Your task to perform on an android device: turn on translation in the chrome app Image 0: 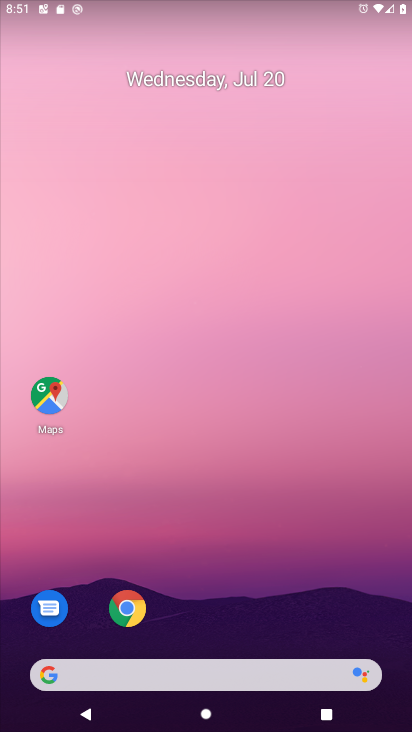
Step 0: drag from (234, 594) to (226, 148)
Your task to perform on an android device: turn on translation in the chrome app Image 1: 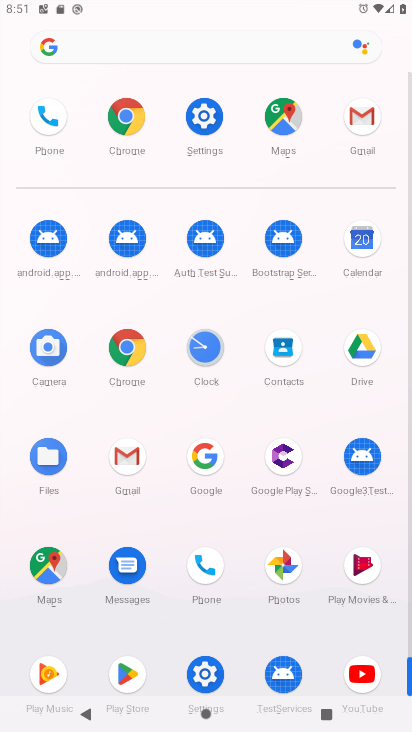
Step 1: click (117, 113)
Your task to perform on an android device: turn on translation in the chrome app Image 2: 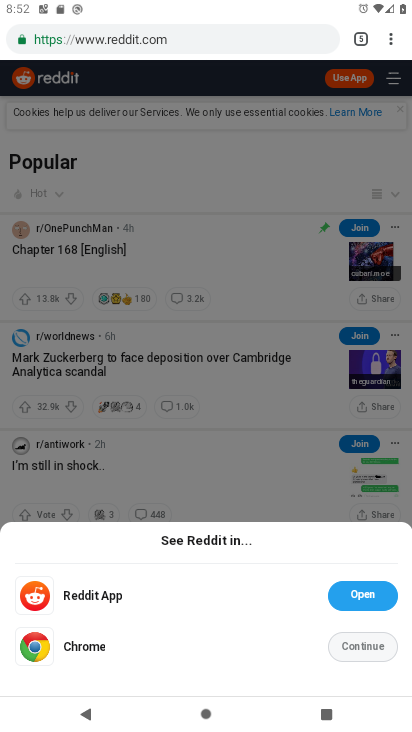
Step 2: click (396, 34)
Your task to perform on an android device: turn on translation in the chrome app Image 3: 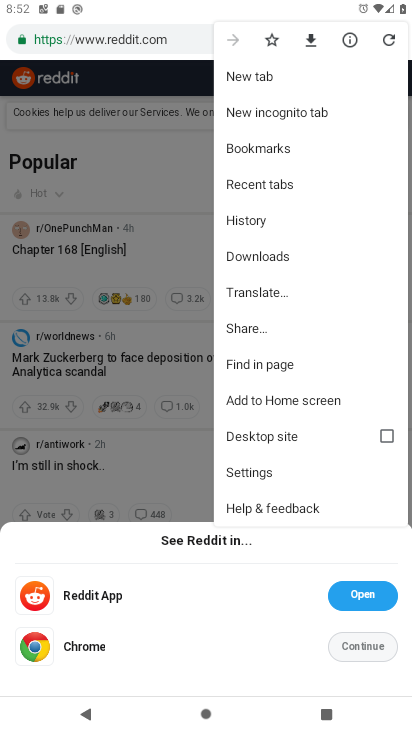
Step 3: click (282, 475)
Your task to perform on an android device: turn on translation in the chrome app Image 4: 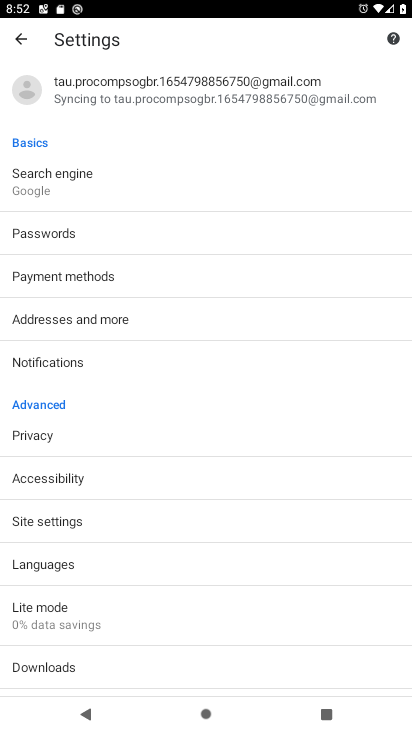
Step 4: click (100, 572)
Your task to perform on an android device: turn on translation in the chrome app Image 5: 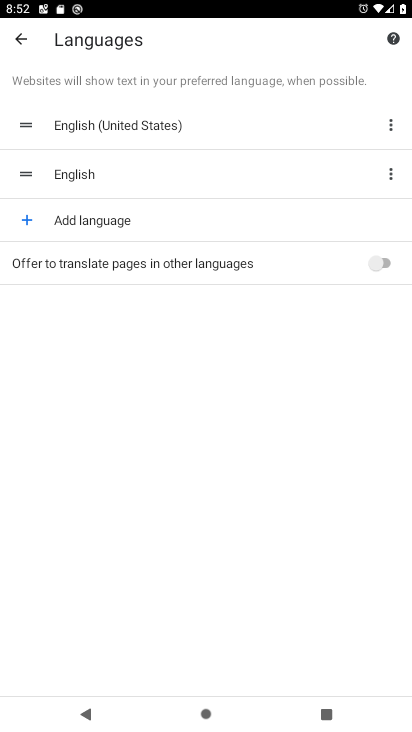
Step 5: click (384, 265)
Your task to perform on an android device: turn on translation in the chrome app Image 6: 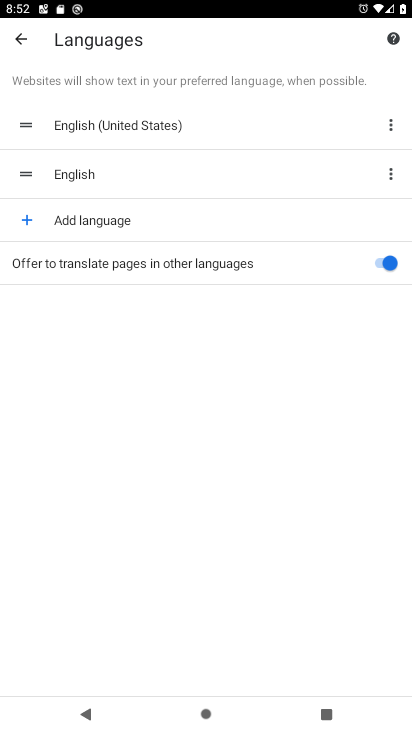
Step 6: task complete